Your task to perform on an android device: see creations saved in the google photos Image 0: 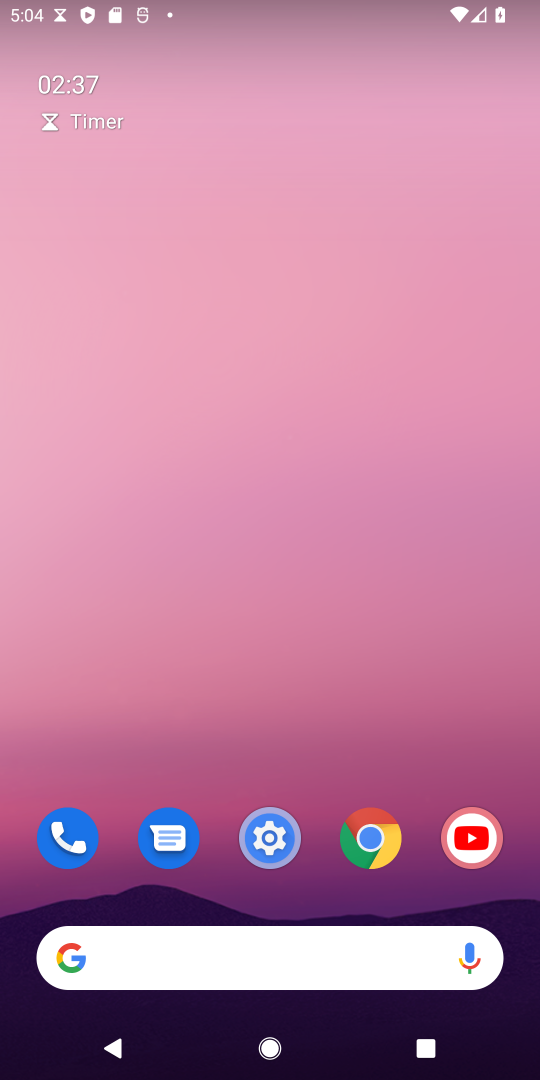
Step 0: drag from (306, 752) to (4, 28)
Your task to perform on an android device: see creations saved in the google photos Image 1: 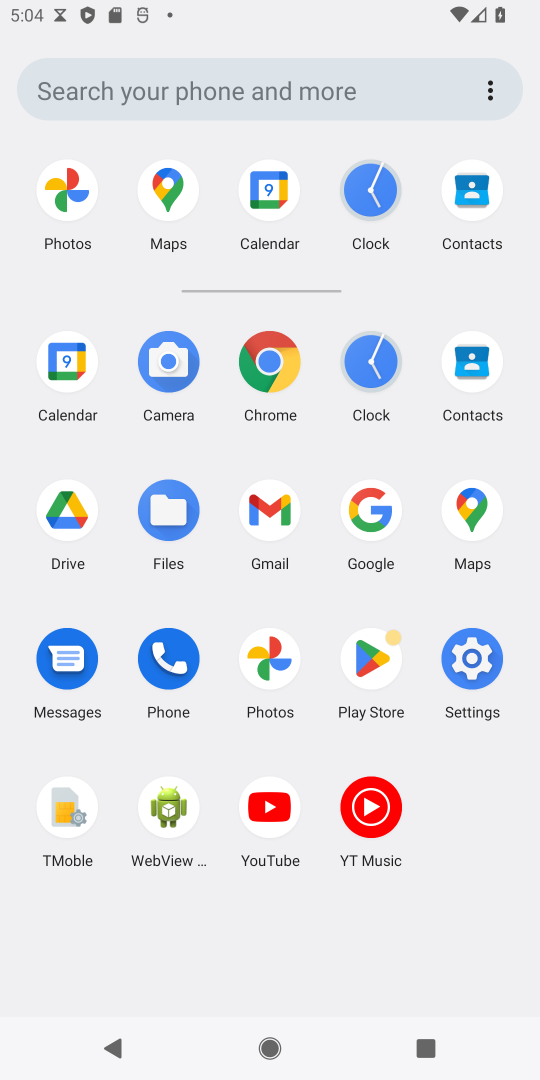
Step 1: click (63, 176)
Your task to perform on an android device: see creations saved in the google photos Image 2: 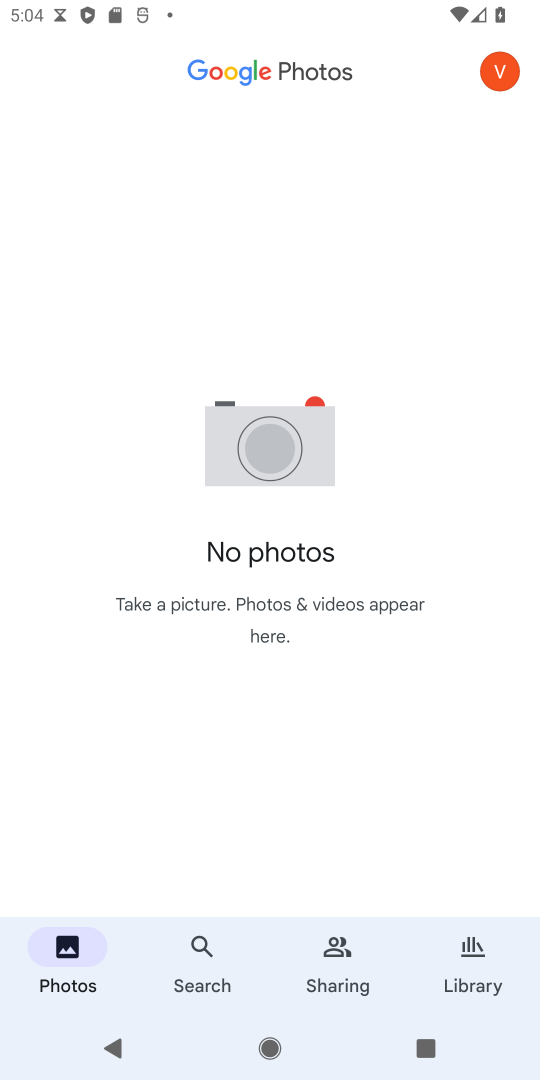
Step 2: click (199, 974)
Your task to perform on an android device: see creations saved in the google photos Image 3: 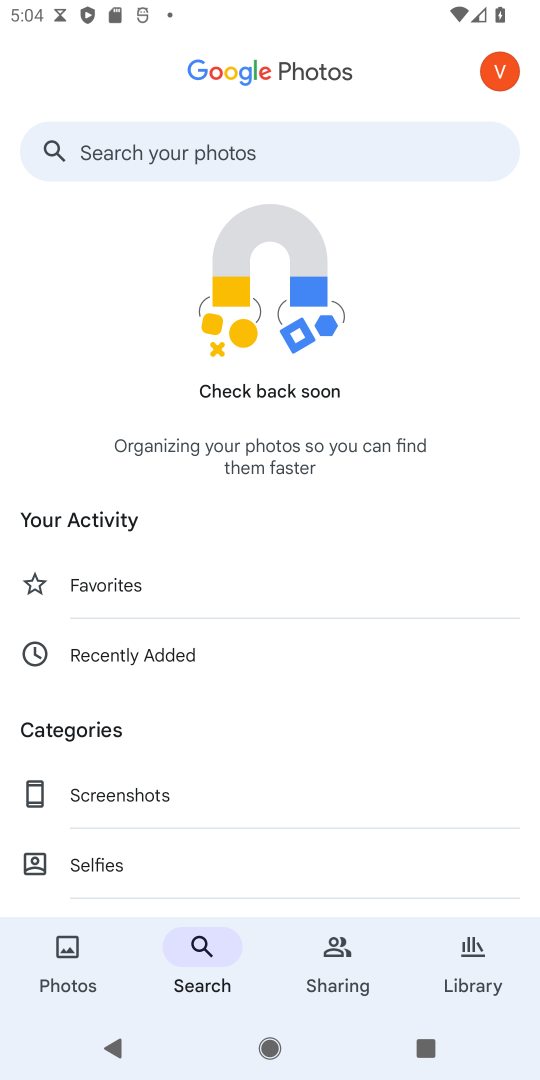
Step 3: drag from (265, 780) to (222, 157)
Your task to perform on an android device: see creations saved in the google photos Image 4: 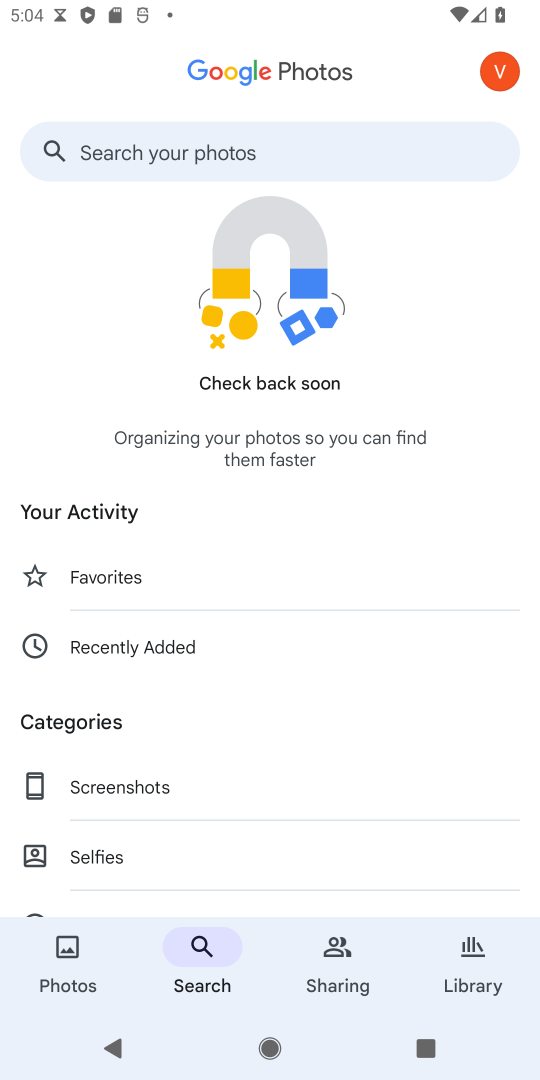
Step 4: drag from (204, 847) to (204, 202)
Your task to perform on an android device: see creations saved in the google photos Image 5: 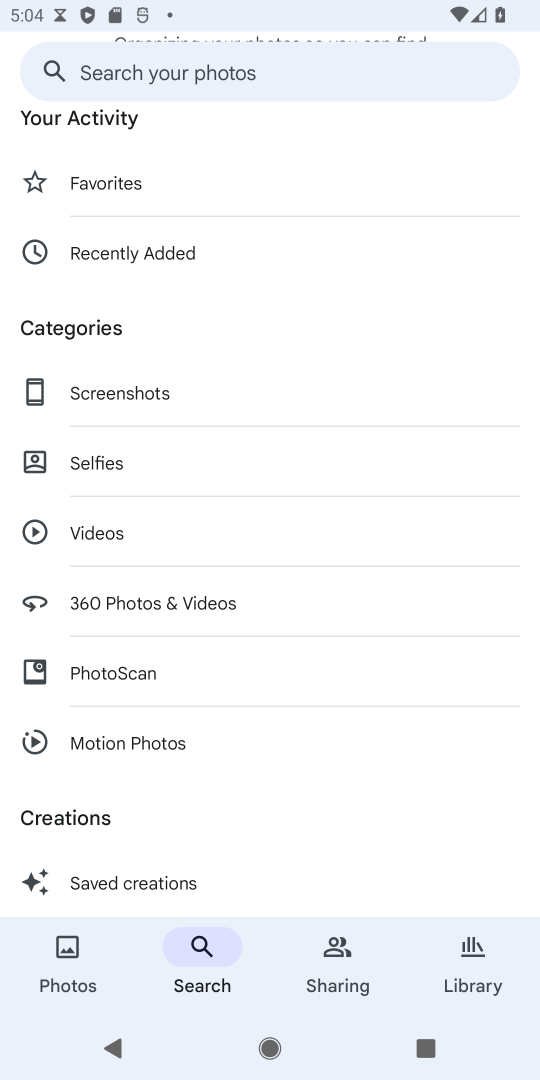
Step 5: drag from (233, 919) to (203, 801)
Your task to perform on an android device: see creations saved in the google photos Image 6: 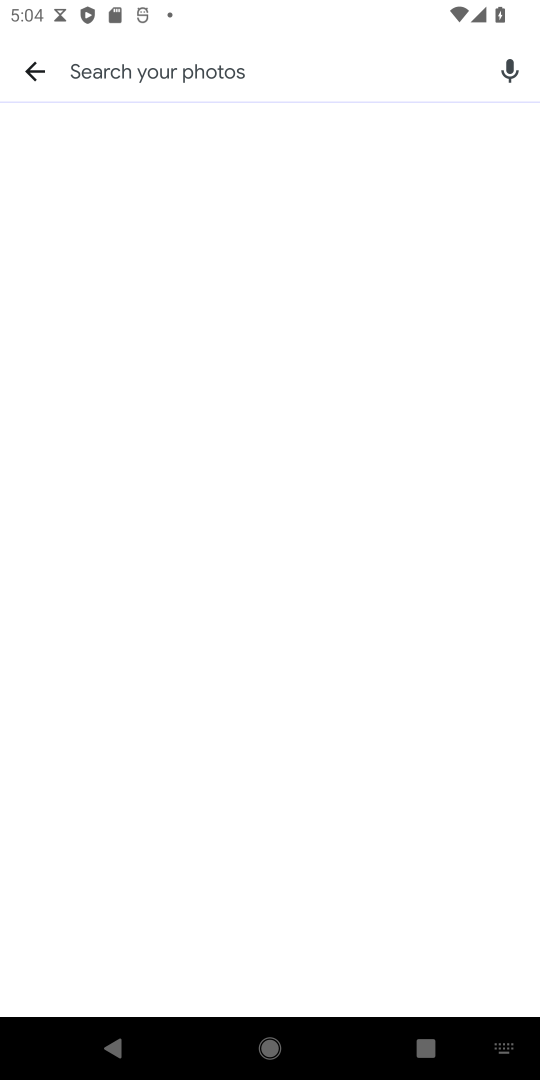
Step 6: press back button
Your task to perform on an android device: see creations saved in the google photos Image 7: 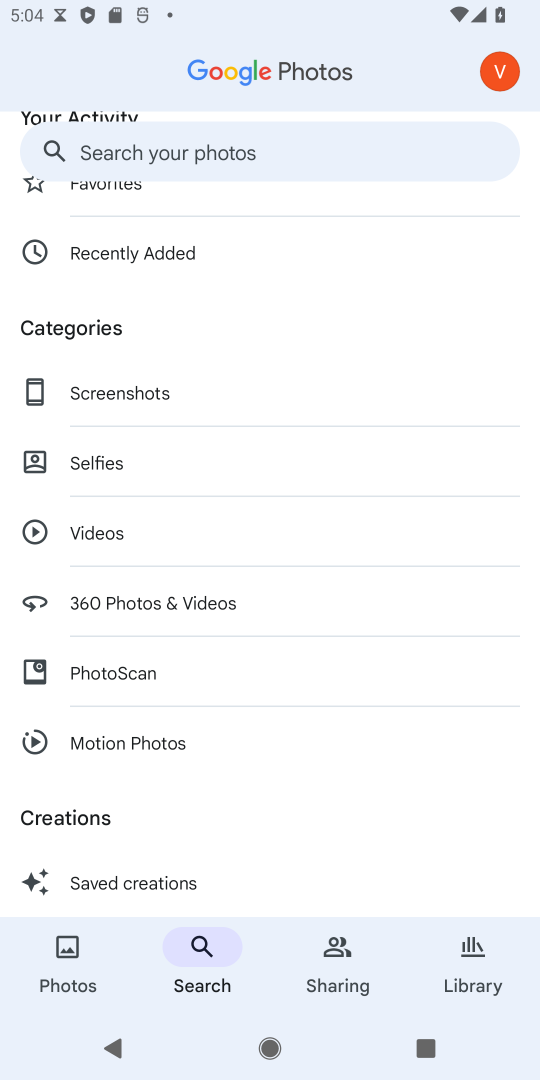
Step 7: click (267, 898)
Your task to perform on an android device: see creations saved in the google photos Image 8: 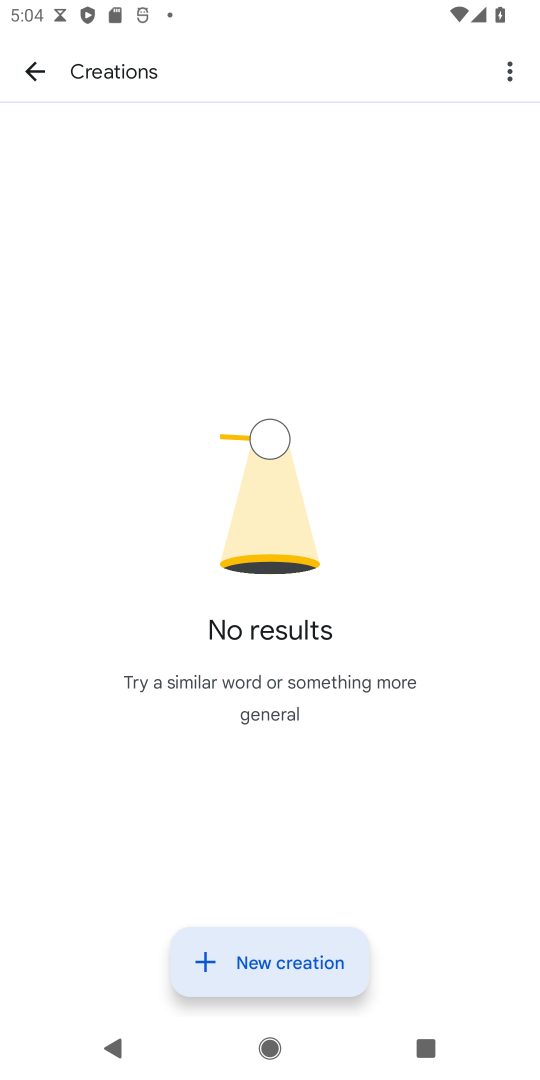
Step 8: task complete